Your task to perform on an android device: Show the shopping cart on amazon.com. Image 0: 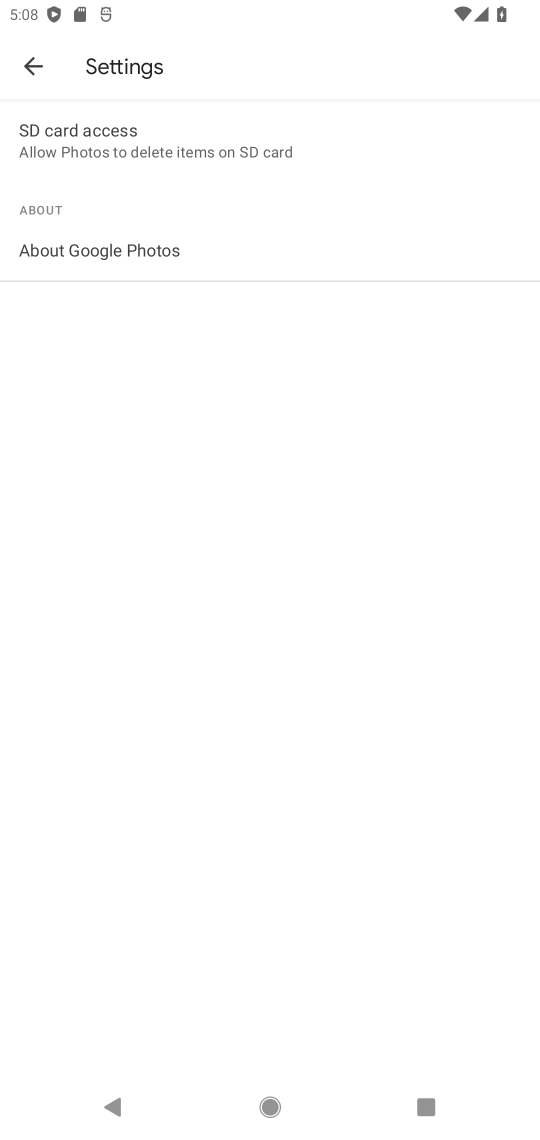
Step 0: press home button
Your task to perform on an android device: Show the shopping cart on amazon.com. Image 1: 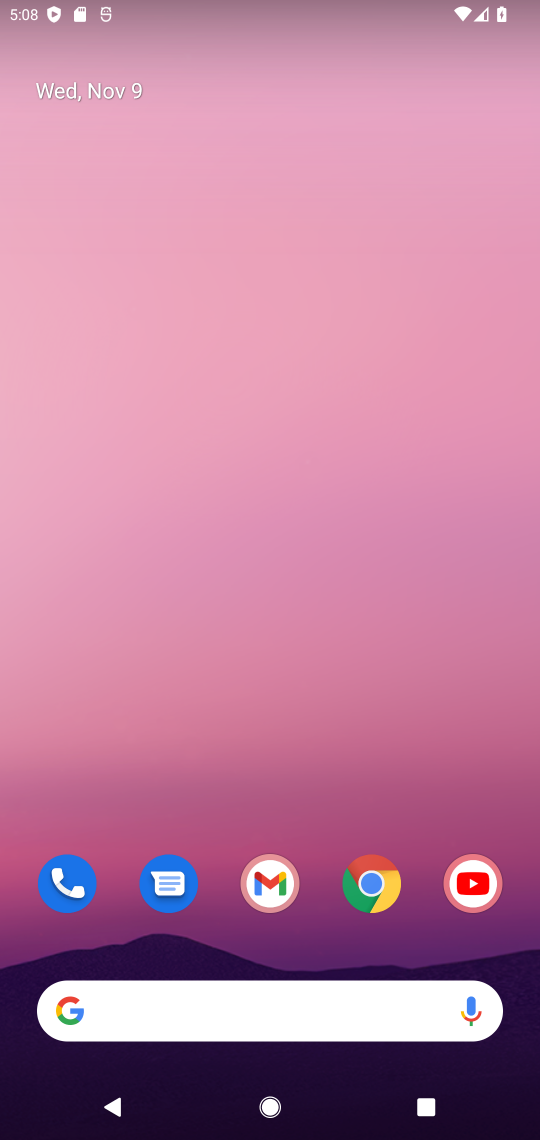
Step 1: click (374, 901)
Your task to perform on an android device: Show the shopping cart on amazon.com. Image 2: 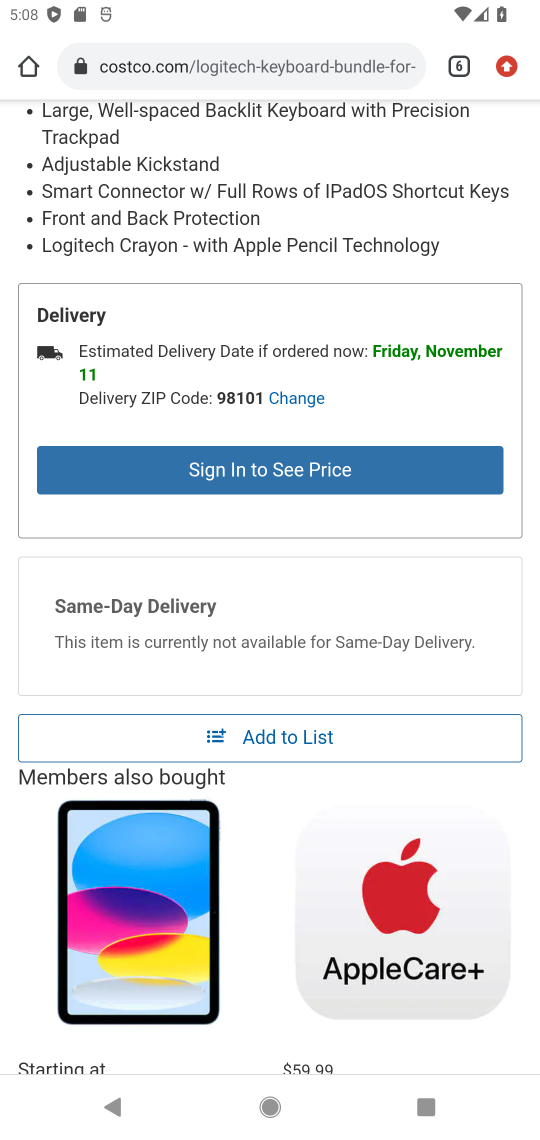
Step 2: click (454, 63)
Your task to perform on an android device: Show the shopping cart on amazon.com. Image 3: 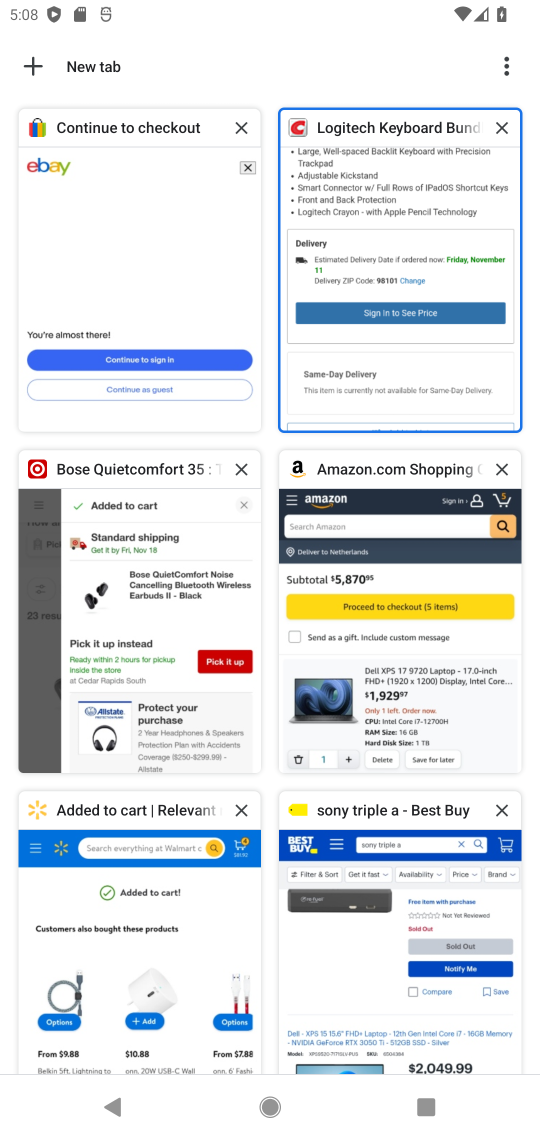
Step 3: click (369, 637)
Your task to perform on an android device: Show the shopping cart on amazon.com. Image 4: 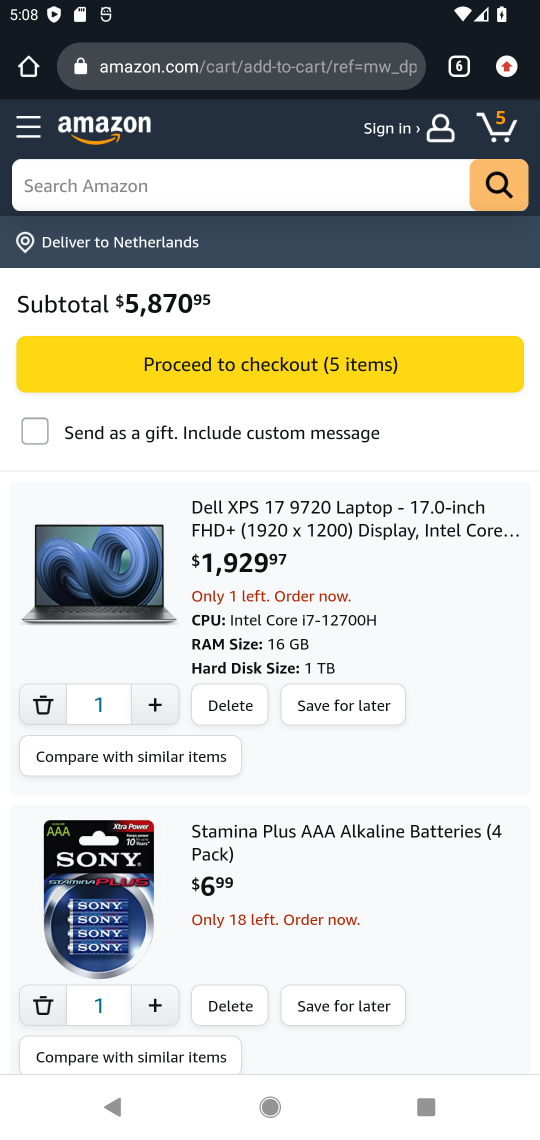
Step 4: task complete